Your task to perform on an android device: open app "Adobe Acrobat Reader" Image 0: 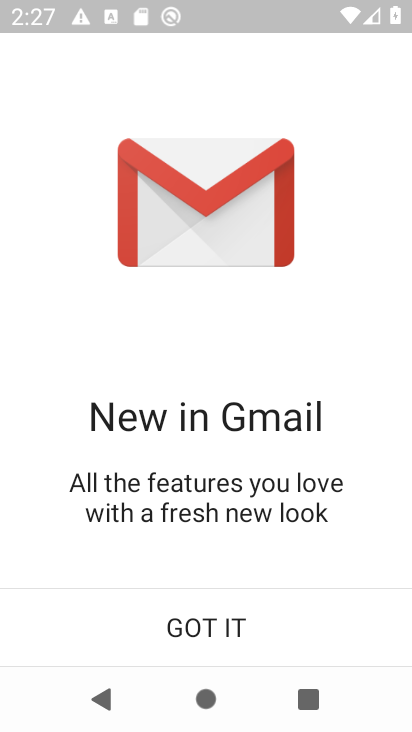
Step 0: press home button
Your task to perform on an android device: open app "Adobe Acrobat Reader" Image 1: 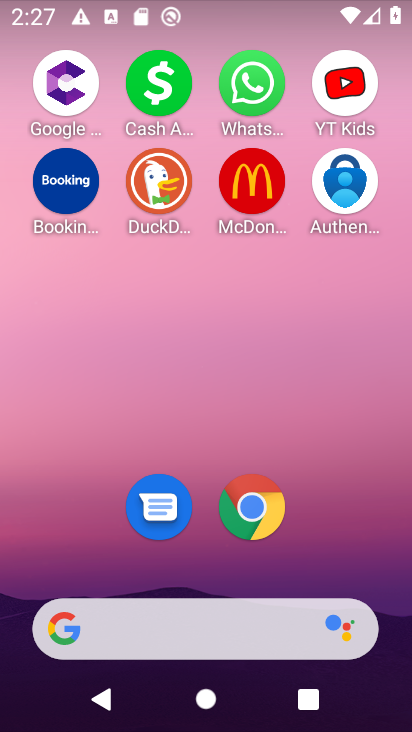
Step 1: drag from (207, 566) to (247, 8)
Your task to perform on an android device: open app "Adobe Acrobat Reader" Image 2: 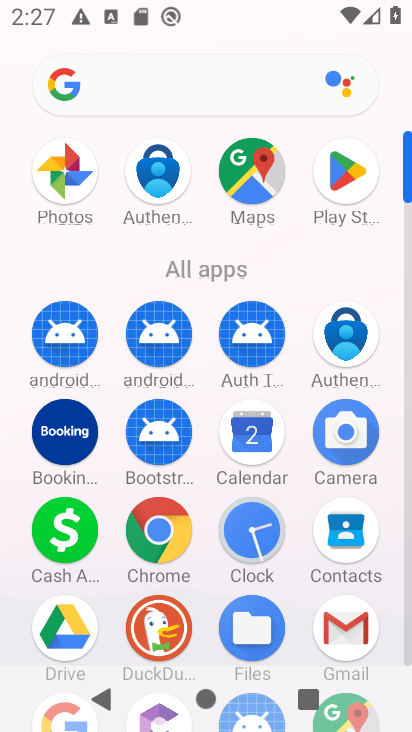
Step 2: click (347, 187)
Your task to perform on an android device: open app "Adobe Acrobat Reader" Image 3: 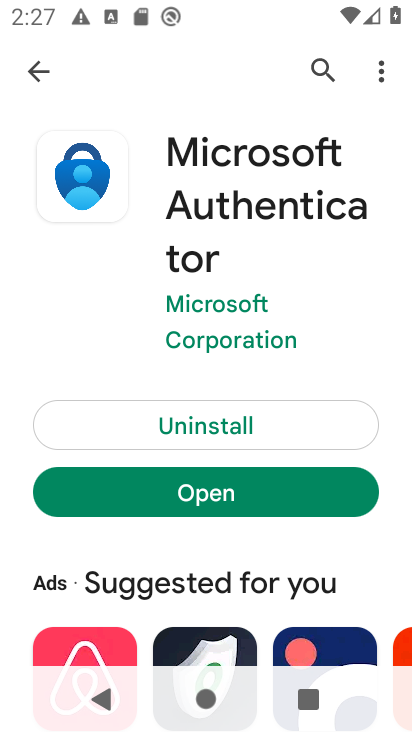
Step 3: click (42, 72)
Your task to perform on an android device: open app "Adobe Acrobat Reader" Image 4: 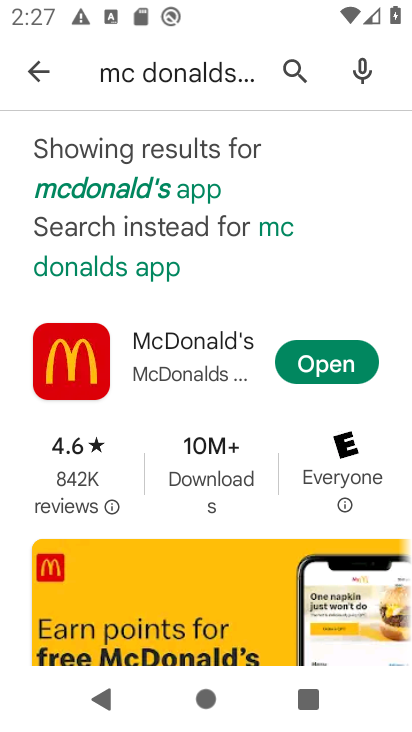
Step 4: click (167, 83)
Your task to perform on an android device: open app "Adobe Acrobat Reader" Image 5: 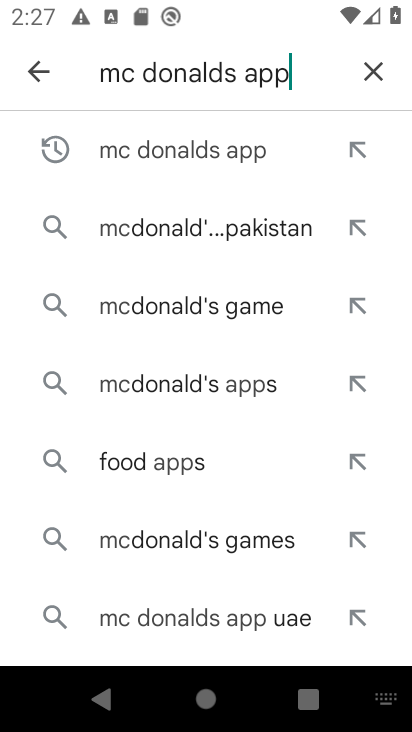
Step 5: click (376, 66)
Your task to perform on an android device: open app "Adobe Acrobat Reader" Image 6: 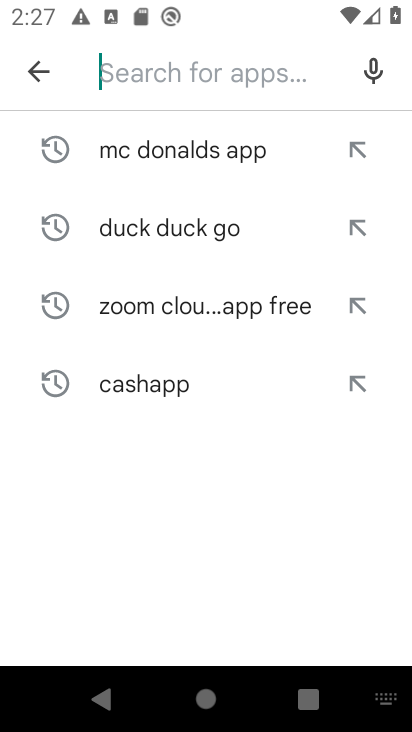
Step 6: type "Adobe Acrobat Reader"
Your task to perform on an android device: open app "Adobe Acrobat Reader" Image 7: 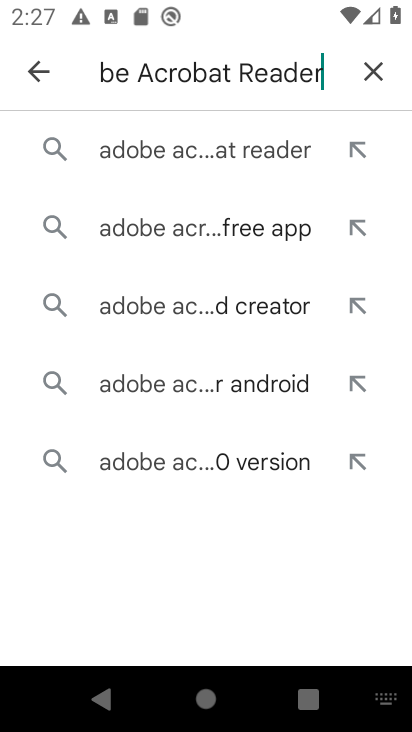
Step 7: click (111, 149)
Your task to perform on an android device: open app "Adobe Acrobat Reader" Image 8: 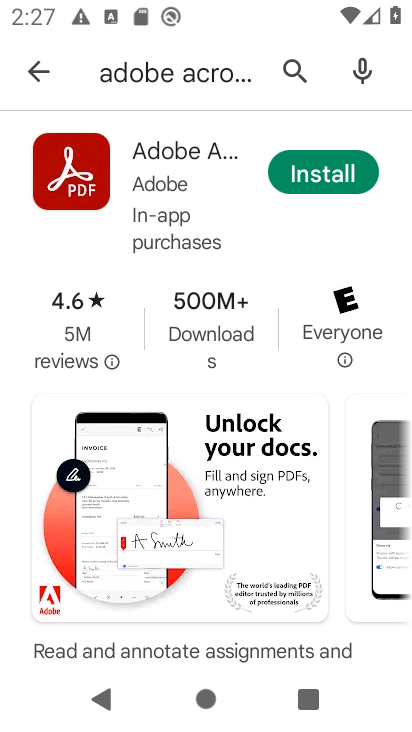
Step 8: task complete